Your task to perform on an android device: open a bookmark in the chrome app Image 0: 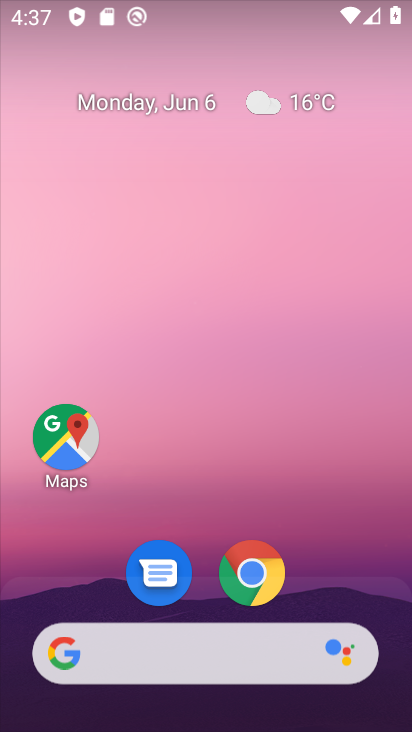
Step 0: click (253, 576)
Your task to perform on an android device: open a bookmark in the chrome app Image 1: 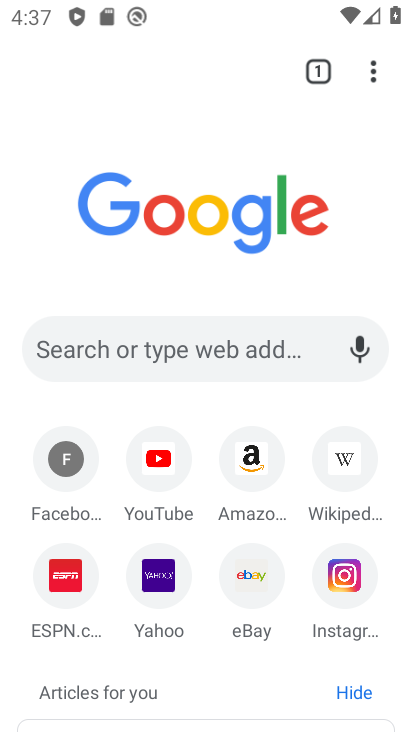
Step 1: click (371, 69)
Your task to perform on an android device: open a bookmark in the chrome app Image 2: 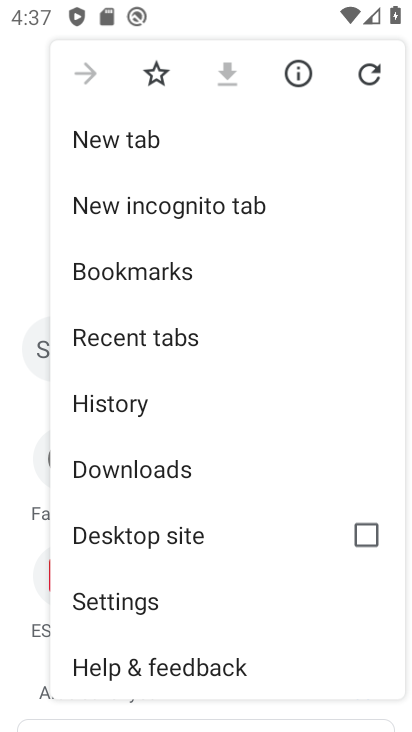
Step 2: click (244, 274)
Your task to perform on an android device: open a bookmark in the chrome app Image 3: 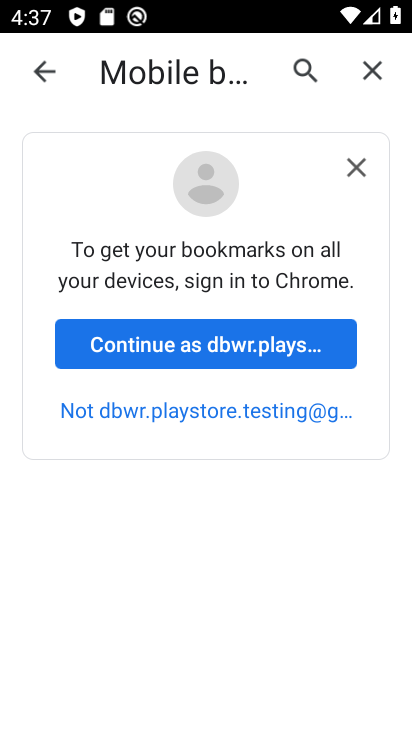
Step 3: task complete